Your task to perform on an android device: add a contact in the contacts app Image 0: 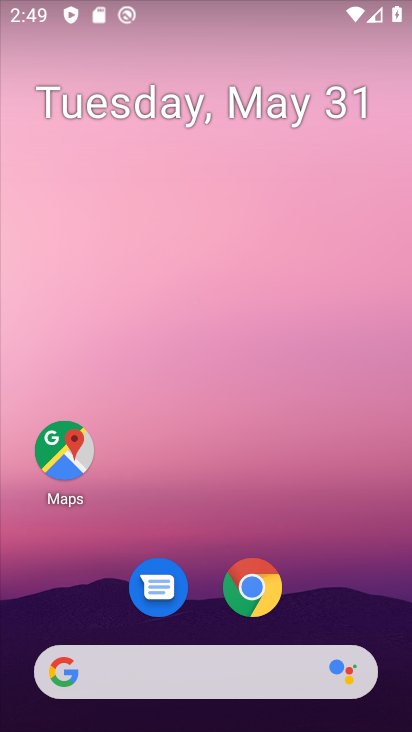
Step 0: drag from (345, 609) to (364, 5)
Your task to perform on an android device: add a contact in the contacts app Image 1: 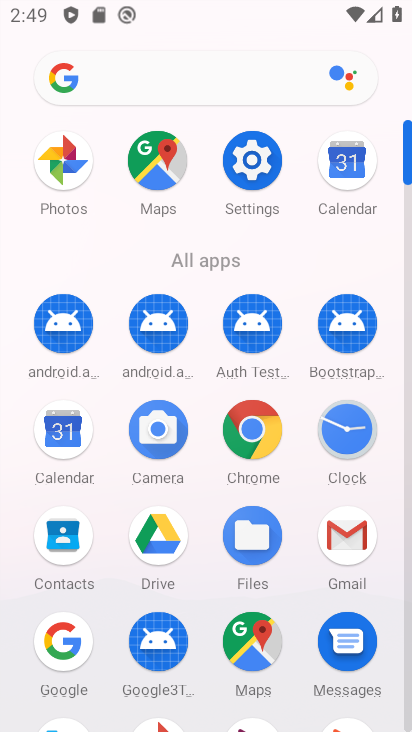
Step 1: click (58, 546)
Your task to perform on an android device: add a contact in the contacts app Image 2: 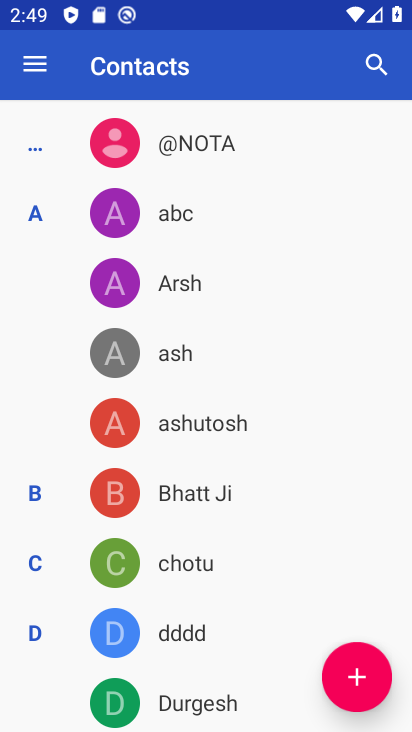
Step 2: click (353, 675)
Your task to perform on an android device: add a contact in the contacts app Image 3: 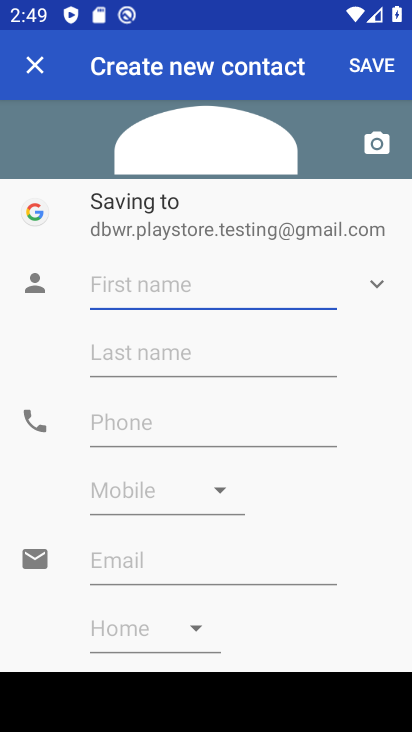
Step 3: type "bnhjyufgcv"
Your task to perform on an android device: add a contact in the contacts app Image 4: 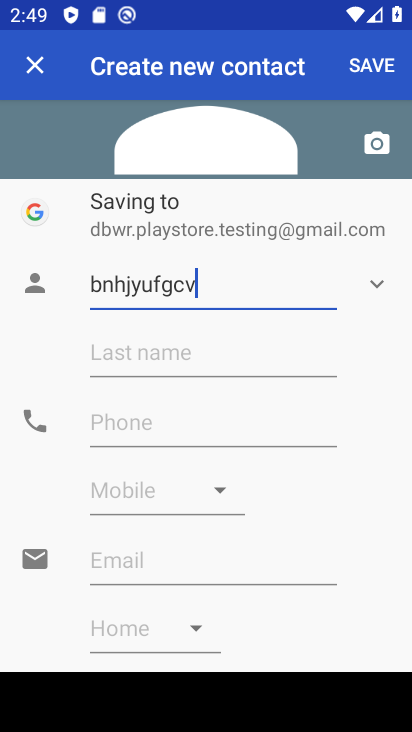
Step 4: click (165, 419)
Your task to perform on an android device: add a contact in the contacts app Image 5: 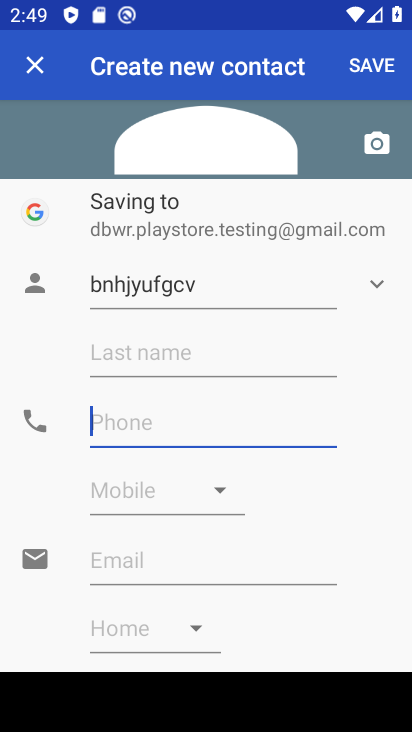
Step 5: type "6789054321"
Your task to perform on an android device: add a contact in the contacts app Image 6: 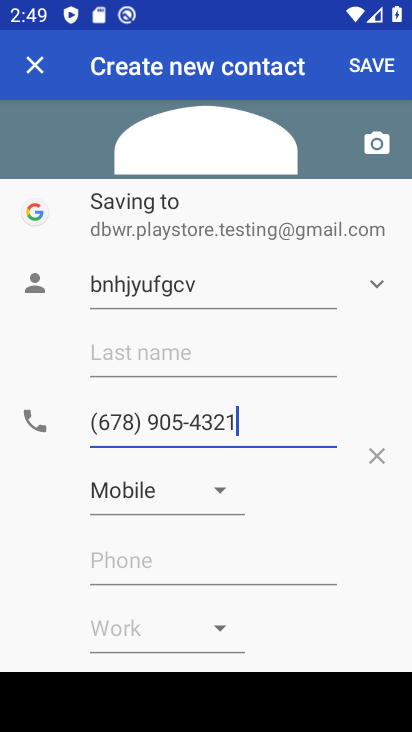
Step 6: click (370, 72)
Your task to perform on an android device: add a contact in the contacts app Image 7: 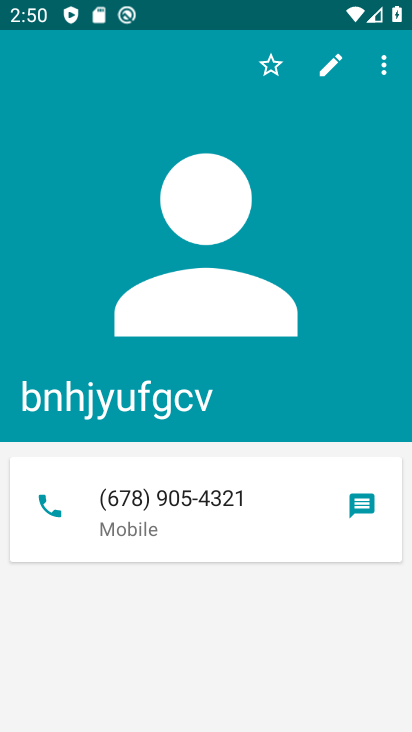
Step 7: task complete